Your task to perform on an android device: clear all cookies in the chrome app Image 0: 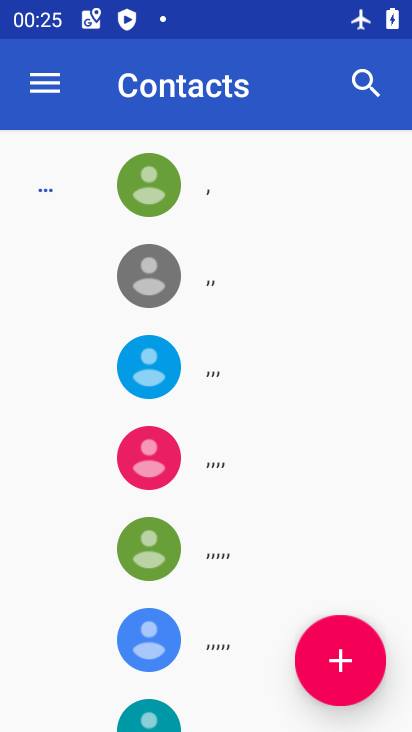
Step 0: press home button
Your task to perform on an android device: clear all cookies in the chrome app Image 1: 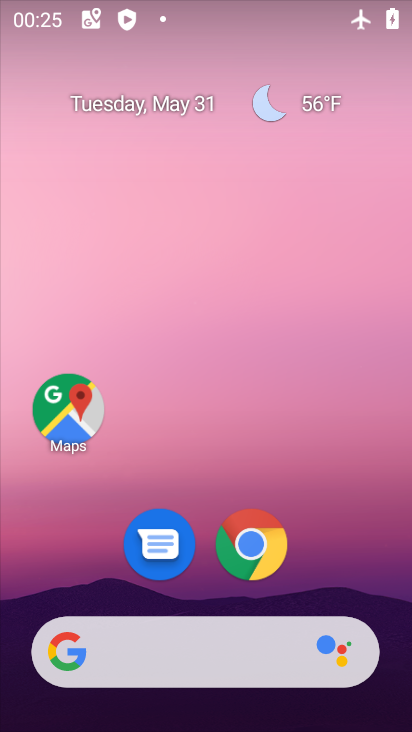
Step 1: click (252, 541)
Your task to perform on an android device: clear all cookies in the chrome app Image 2: 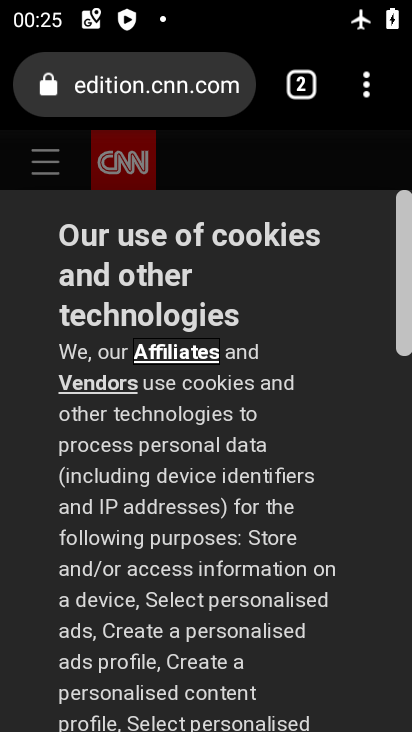
Step 2: click (369, 87)
Your task to perform on an android device: clear all cookies in the chrome app Image 3: 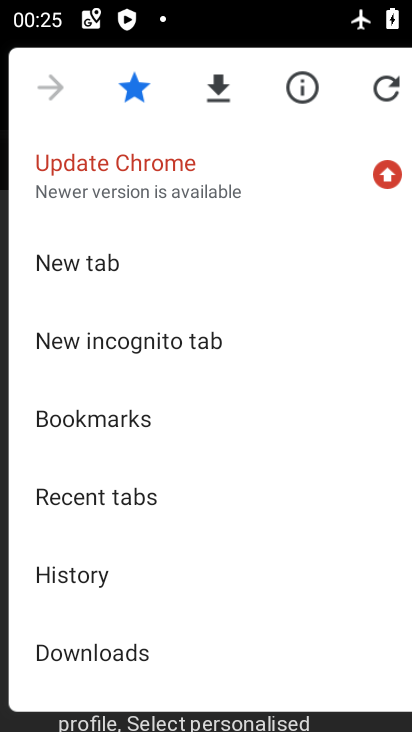
Step 3: drag from (249, 562) to (223, 310)
Your task to perform on an android device: clear all cookies in the chrome app Image 4: 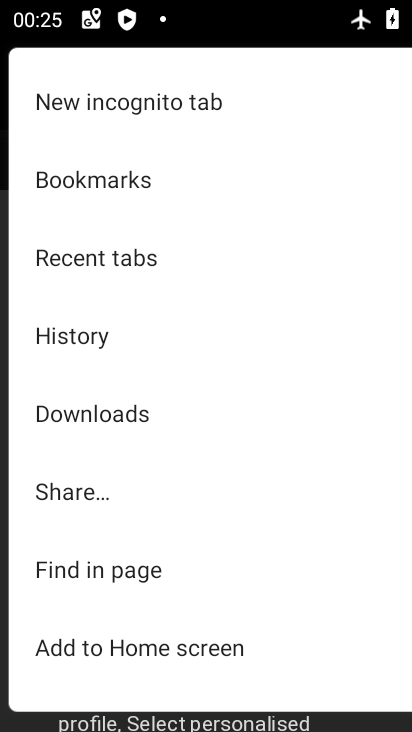
Step 4: drag from (212, 529) to (243, 214)
Your task to perform on an android device: clear all cookies in the chrome app Image 5: 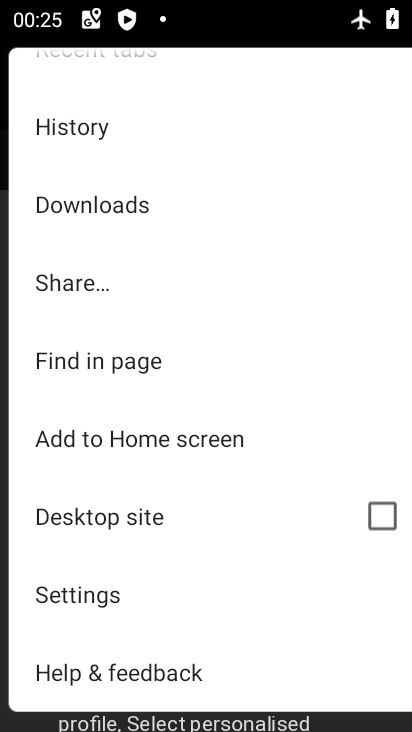
Step 5: click (91, 589)
Your task to perform on an android device: clear all cookies in the chrome app Image 6: 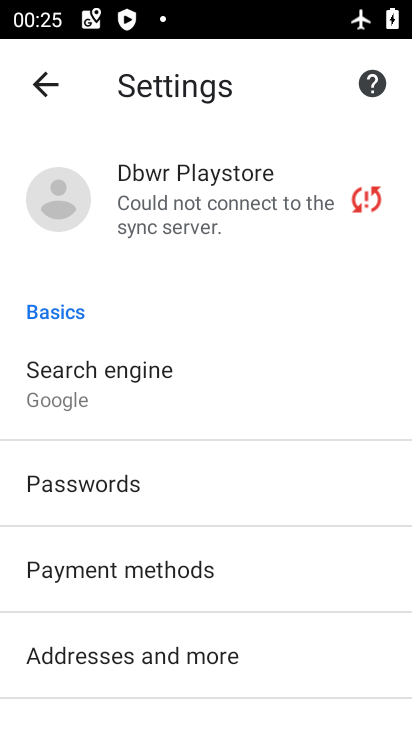
Step 6: drag from (262, 597) to (238, 319)
Your task to perform on an android device: clear all cookies in the chrome app Image 7: 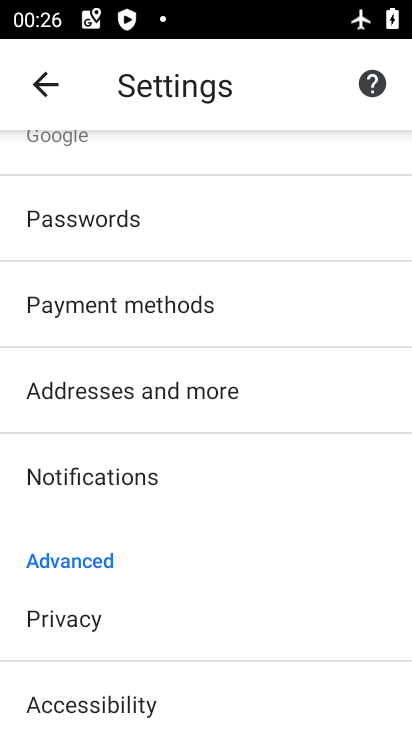
Step 7: drag from (181, 254) to (129, 723)
Your task to perform on an android device: clear all cookies in the chrome app Image 8: 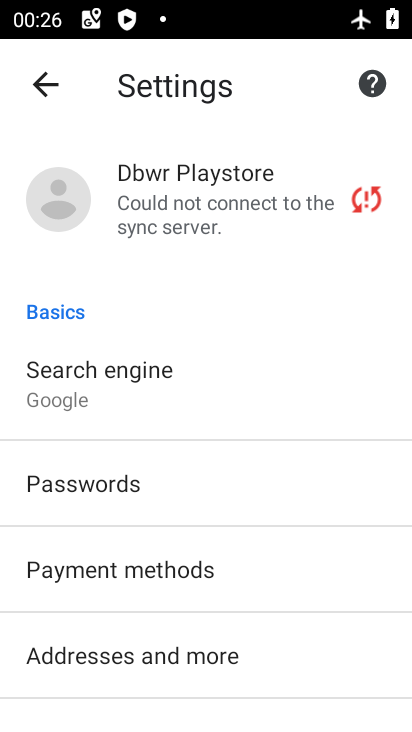
Step 8: drag from (286, 560) to (253, 291)
Your task to perform on an android device: clear all cookies in the chrome app Image 9: 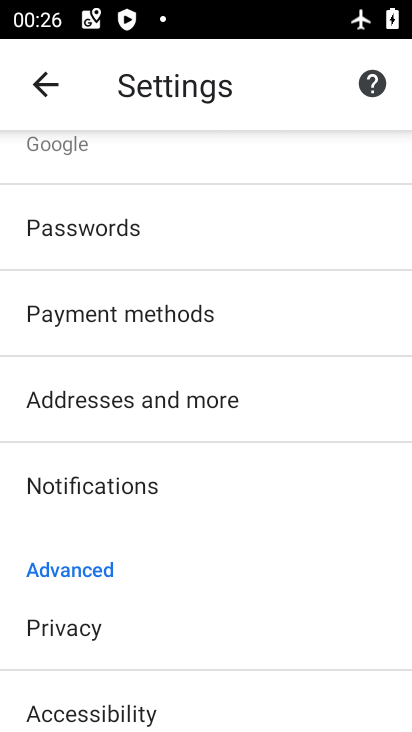
Step 9: click (67, 621)
Your task to perform on an android device: clear all cookies in the chrome app Image 10: 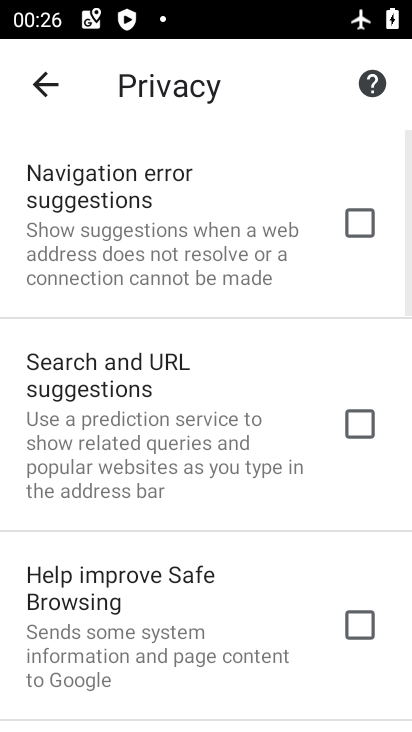
Step 10: drag from (258, 564) to (226, 218)
Your task to perform on an android device: clear all cookies in the chrome app Image 11: 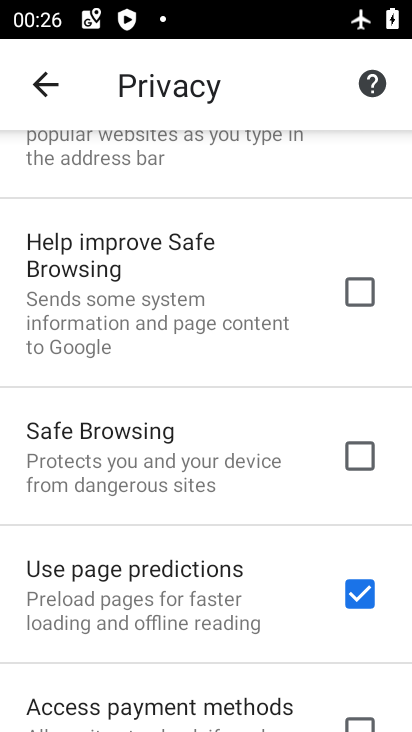
Step 11: drag from (233, 516) to (205, 239)
Your task to perform on an android device: clear all cookies in the chrome app Image 12: 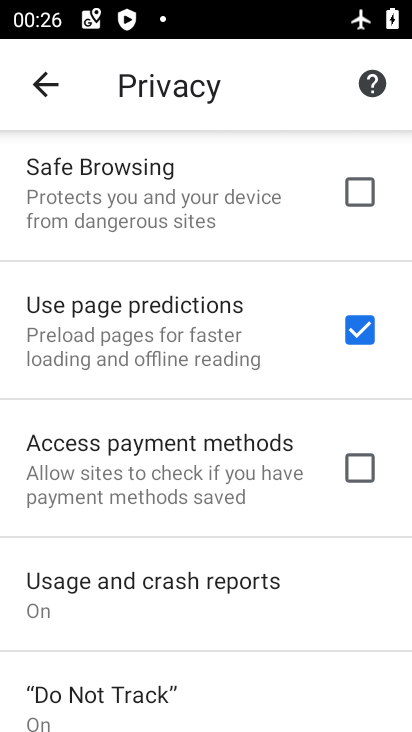
Step 12: drag from (210, 559) to (192, 303)
Your task to perform on an android device: clear all cookies in the chrome app Image 13: 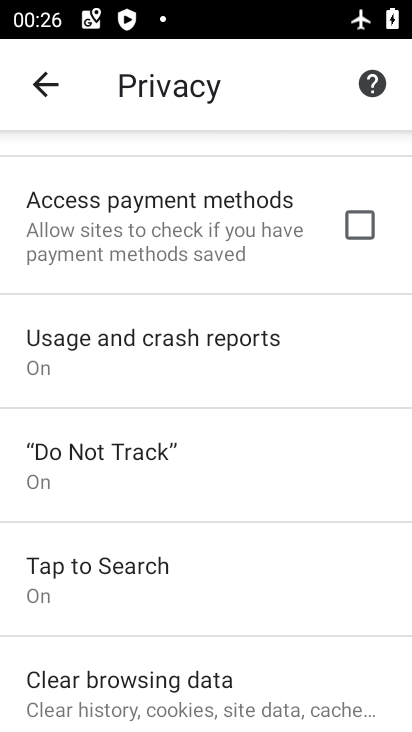
Step 13: drag from (219, 569) to (152, 224)
Your task to perform on an android device: clear all cookies in the chrome app Image 14: 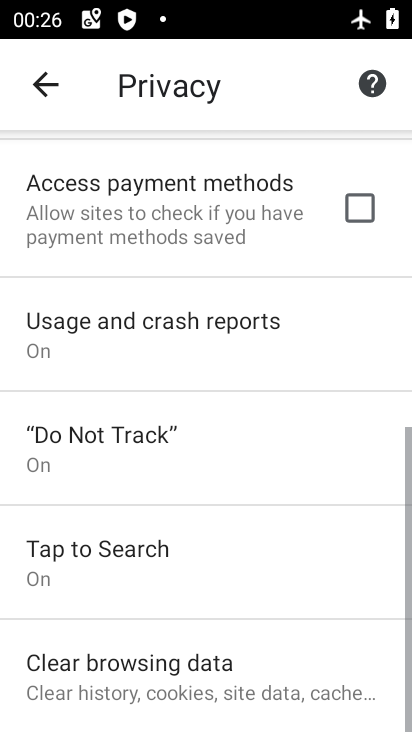
Step 14: click (164, 655)
Your task to perform on an android device: clear all cookies in the chrome app Image 15: 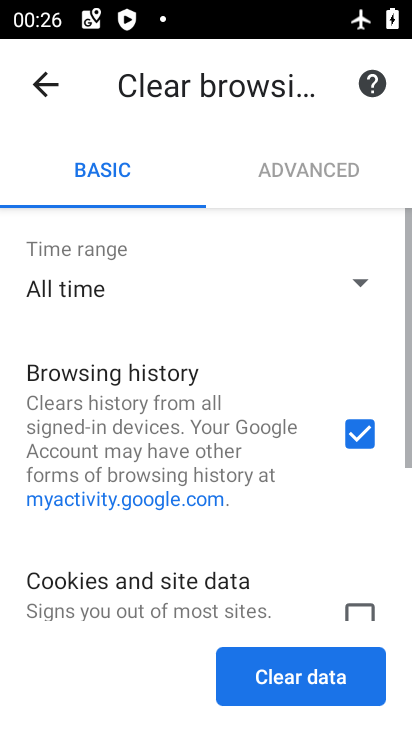
Step 15: drag from (214, 547) to (153, 256)
Your task to perform on an android device: clear all cookies in the chrome app Image 16: 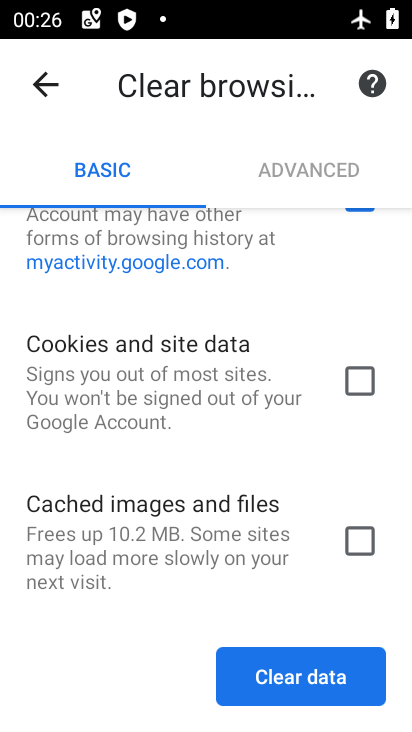
Step 16: drag from (156, 589) to (101, 279)
Your task to perform on an android device: clear all cookies in the chrome app Image 17: 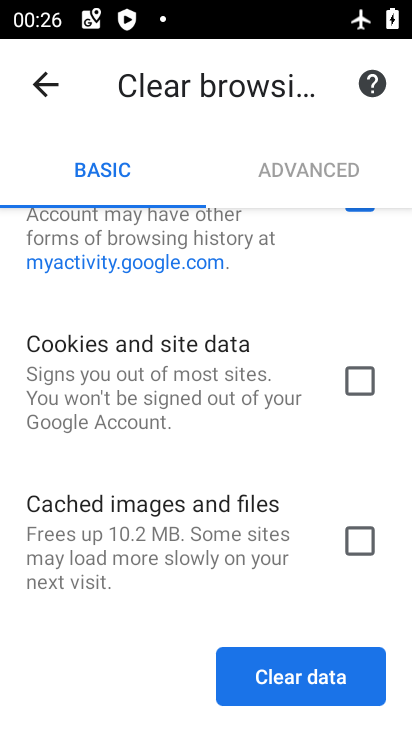
Step 17: drag from (195, 281) to (197, 444)
Your task to perform on an android device: clear all cookies in the chrome app Image 18: 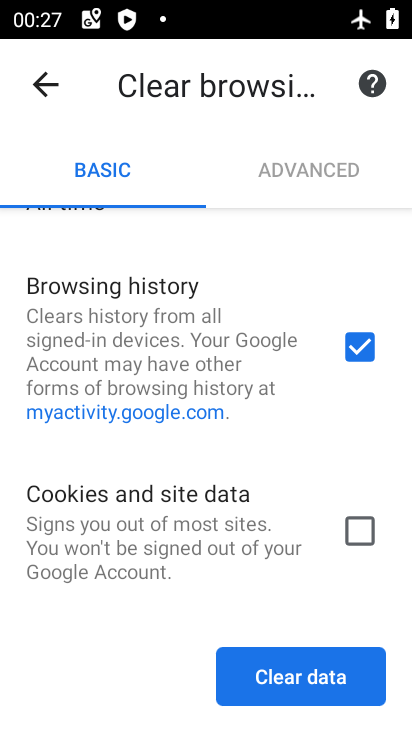
Step 18: drag from (195, 263) to (188, 428)
Your task to perform on an android device: clear all cookies in the chrome app Image 19: 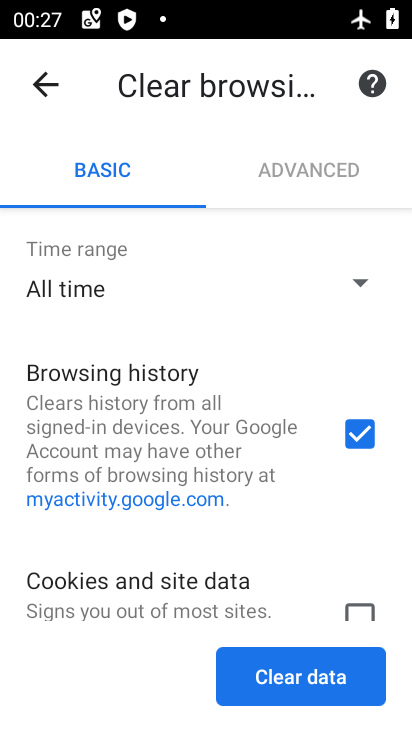
Step 19: drag from (177, 508) to (166, 245)
Your task to perform on an android device: clear all cookies in the chrome app Image 20: 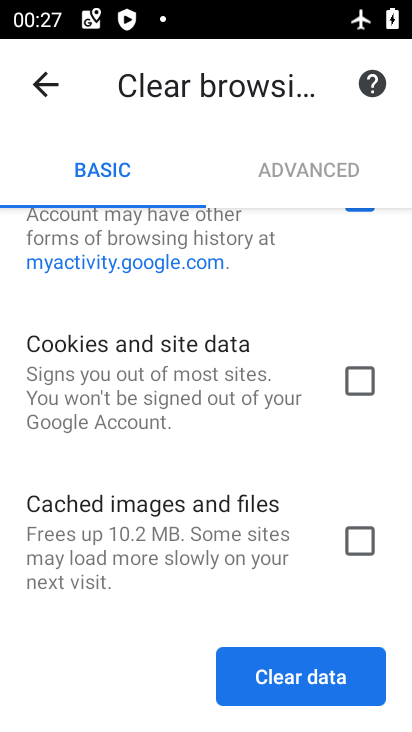
Step 20: drag from (267, 295) to (312, 447)
Your task to perform on an android device: clear all cookies in the chrome app Image 21: 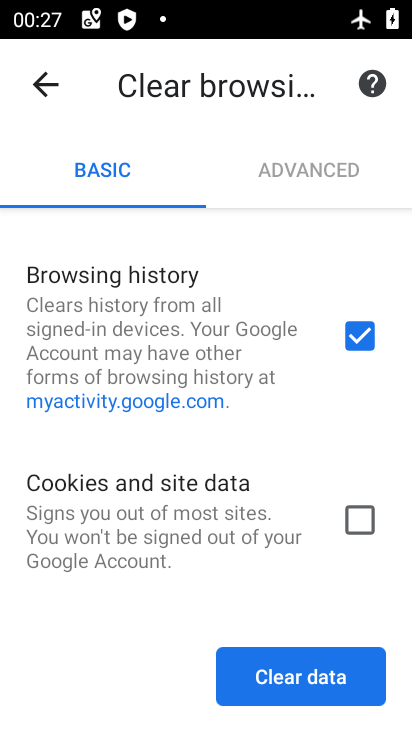
Step 21: click (352, 334)
Your task to perform on an android device: clear all cookies in the chrome app Image 22: 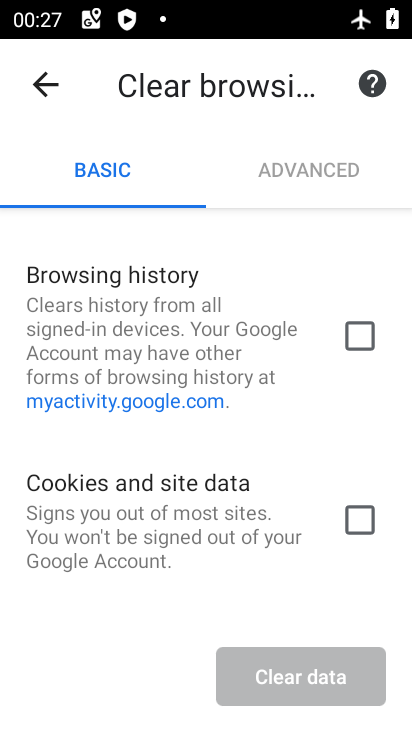
Step 22: click (371, 517)
Your task to perform on an android device: clear all cookies in the chrome app Image 23: 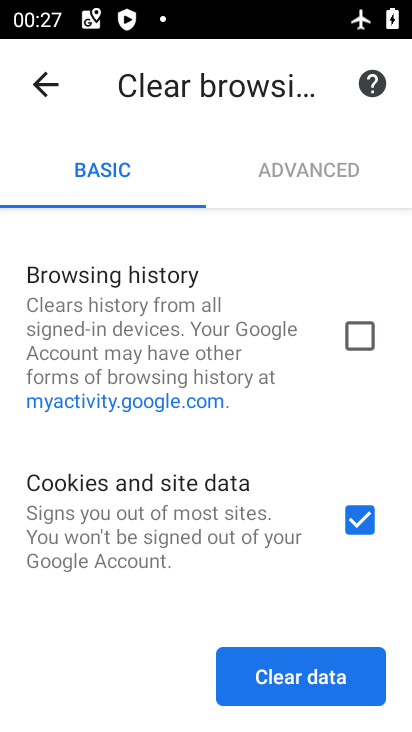
Step 23: drag from (172, 554) to (129, 289)
Your task to perform on an android device: clear all cookies in the chrome app Image 24: 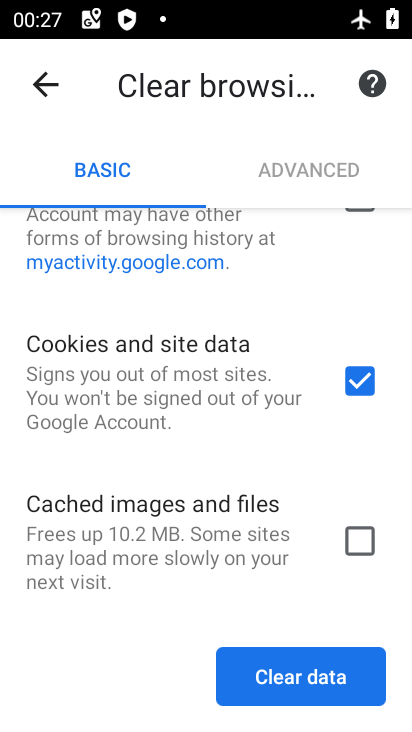
Step 24: click (278, 669)
Your task to perform on an android device: clear all cookies in the chrome app Image 25: 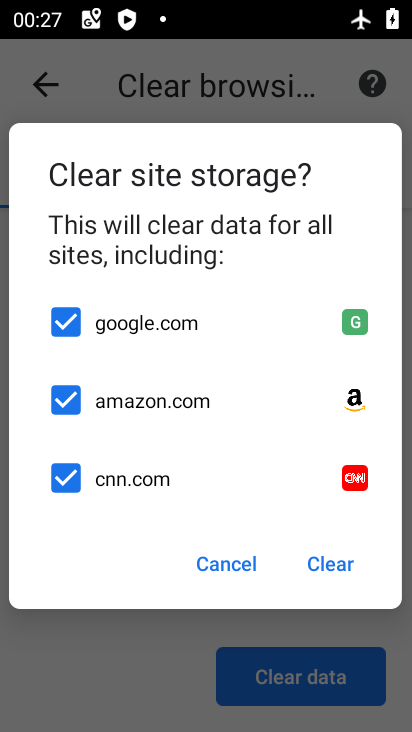
Step 25: click (329, 561)
Your task to perform on an android device: clear all cookies in the chrome app Image 26: 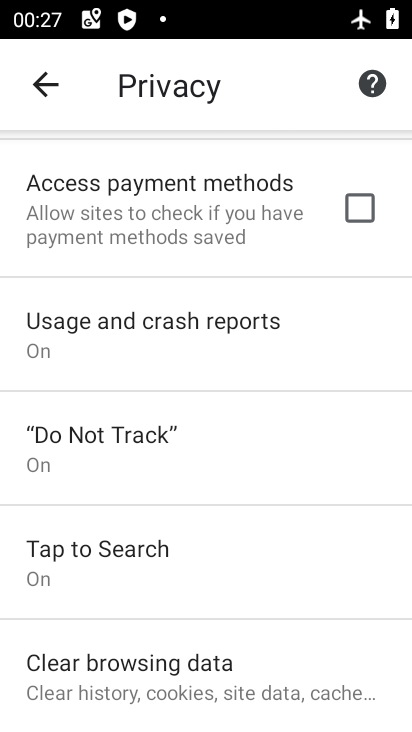
Step 26: task complete